Your task to perform on an android device: turn on the 24-hour format for clock Image 0: 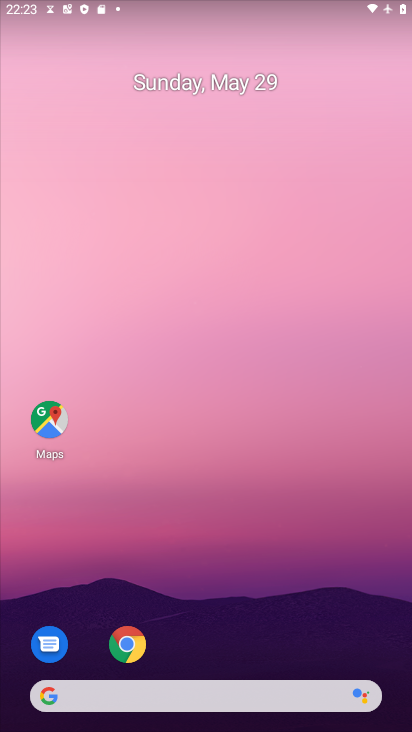
Step 0: drag from (235, 616) to (186, 274)
Your task to perform on an android device: turn on the 24-hour format for clock Image 1: 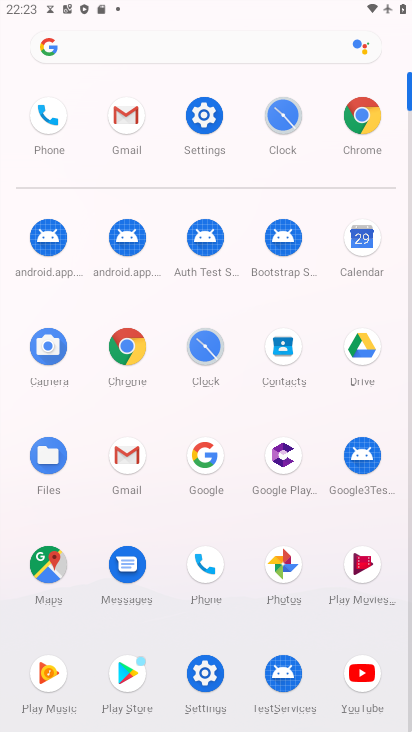
Step 1: click (129, 340)
Your task to perform on an android device: turn on the 24-hour format for clock Image 2: 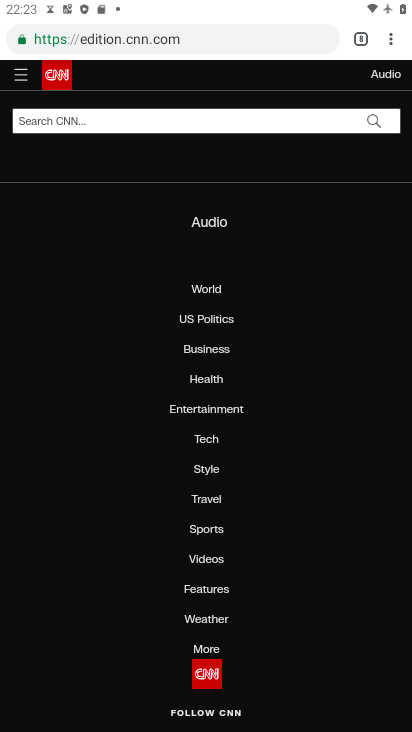
Step 2: click (394, 33)
Your task to perform on an android device: turn on the 24-hour format for clock Image 3: 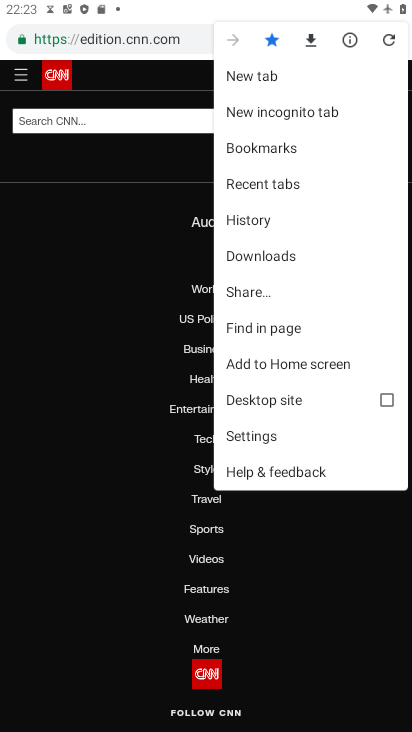
Step 3: click (280, 435)
Your task to perform on an android device: turn on the 24-hour format for clock Image 4: 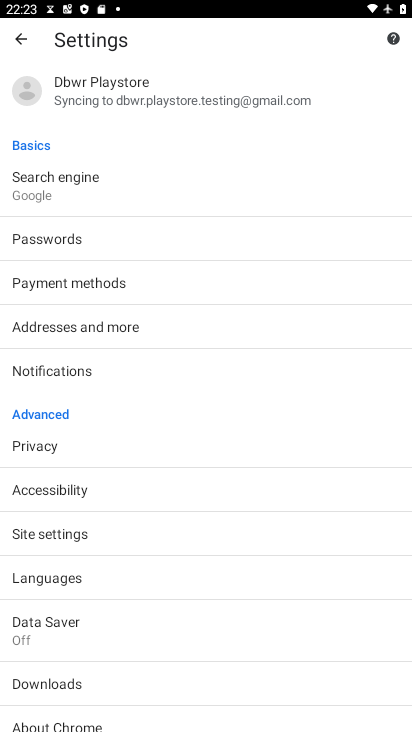
Step 4: drag from (93, 534) to (126, 451)
Your task to perform on an android device: turn on the 24-hour format for clock Image 5: 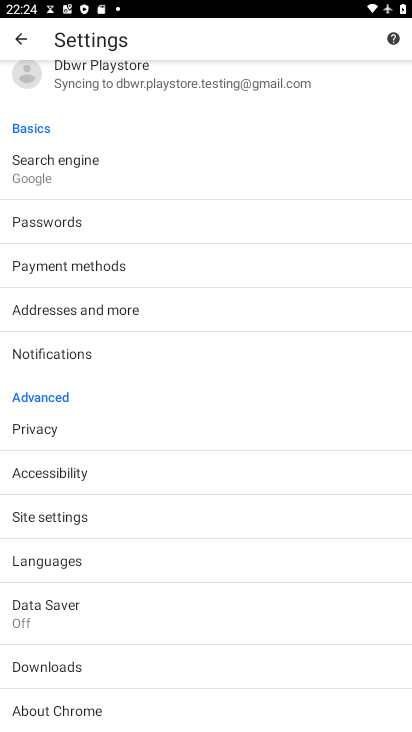
Step 5: click (92, 518)
Your task to perform on an android device: turn on the 24-hour format for clock Image 6: 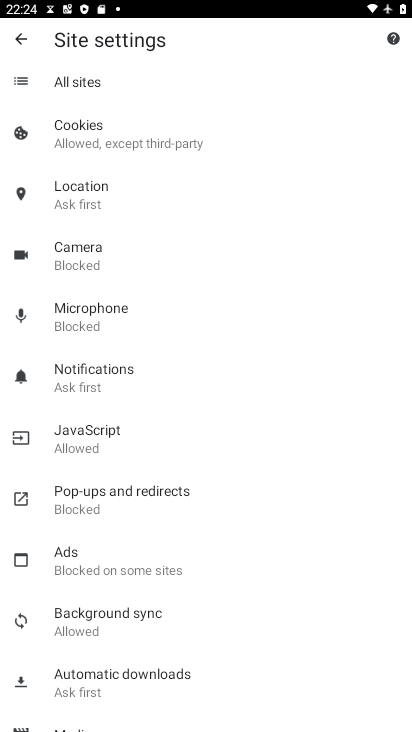
Step 6: drag from (125, 611) to (138, 443)
Your task to perform on an android device: turn on the 24-hour format for clock Image 7: 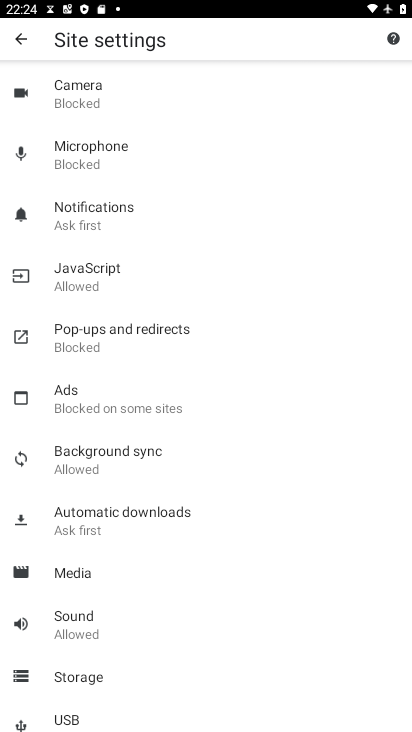
Step 7: press home button
Your task to perform on an android device: turn on the 24-hour format for clock Image 8: 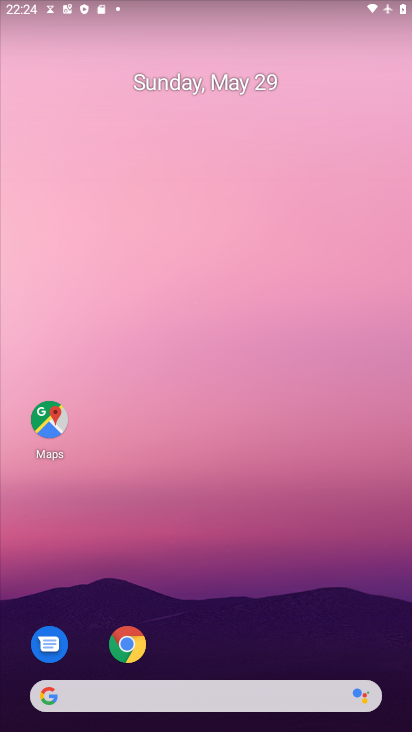
Step 8: drag from (264, 595) to (253, 296)
Your task to perform on an android device: turn on the 24-hour format for clock Image 9: 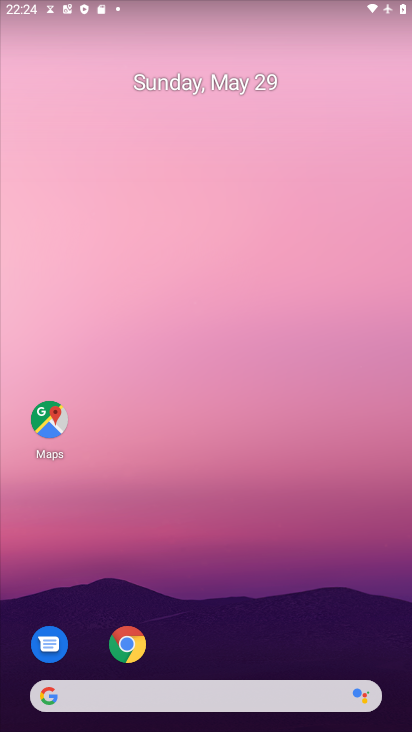
Step 9: drag from (238, 570) to (271, 219)
Your task to perform on an android device: turn on the 24-hour format for clock Image 10: 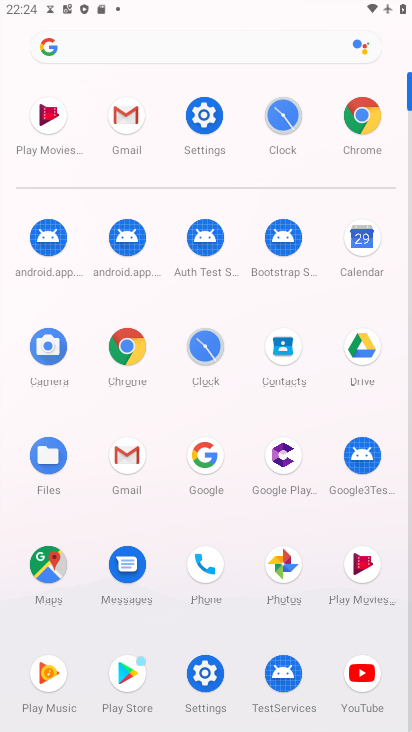
Step 10: click (203, 341)
Your task to perform on an android device: turn on the 24-hour format for clock Image 11: 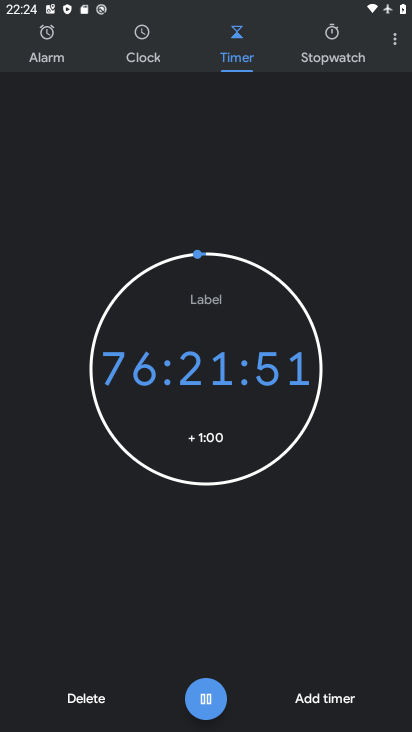
Step 11: click (387, 35)
Your task to perform on an android device: turn on the 24-hour format for clock Image 12: 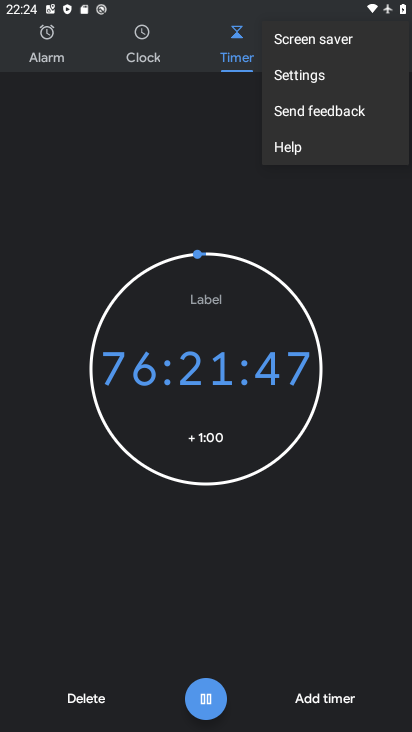
Step 12: click (316, 78)
Your task to perform on an android device: turn on the 24-hour format for clock Image 13: 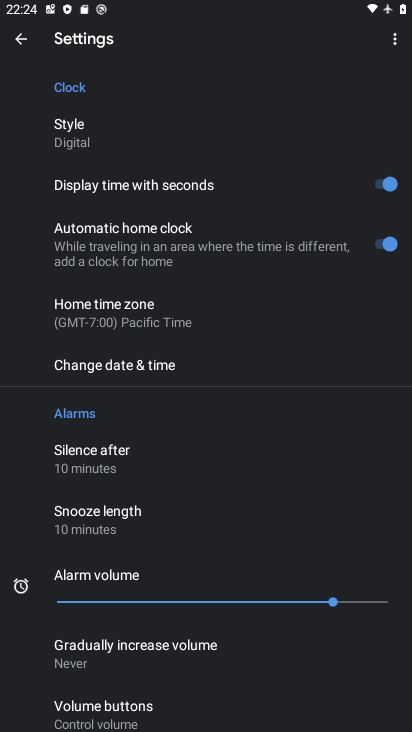
Step 13: click (144, 370)
Your task to perform on an android device: turn on the 24-hour format for clock Image 14: 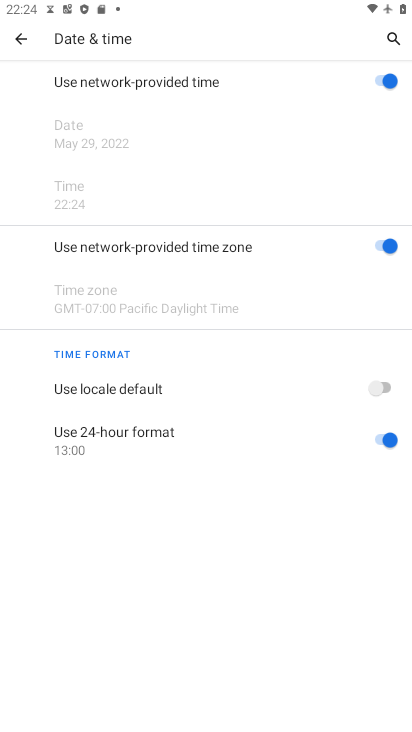
Step 14: task complete